Your task to perform on an android device: check storage Image 0: 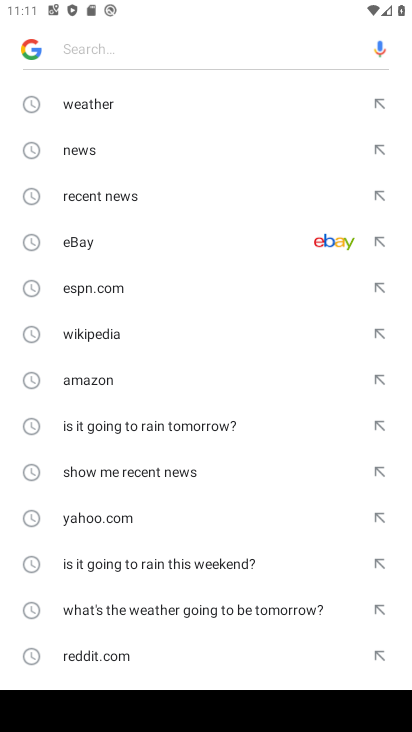
Step 0: press home button
Your task to perform on an android device: check storage Image 1: 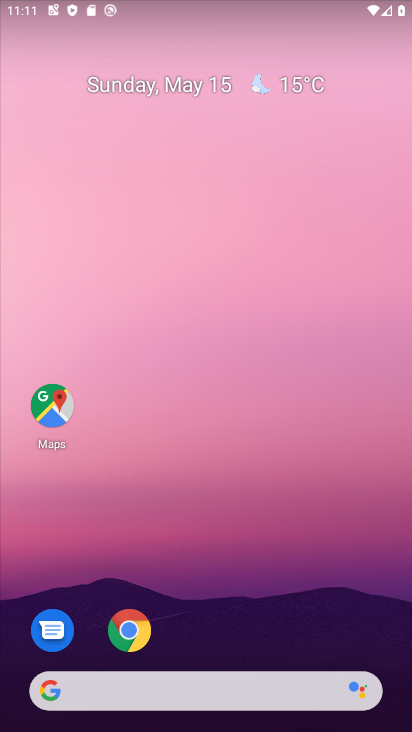
Step 1: drag from (193, 726) to (197, 144)
Your task to perform on an android device: check storage Image 2: 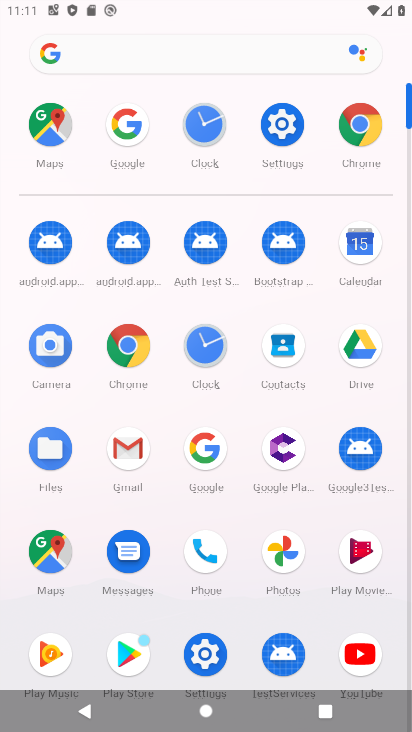
Step 2: click (289, 122)
Your task to perform on an android device: check storage Image 3: 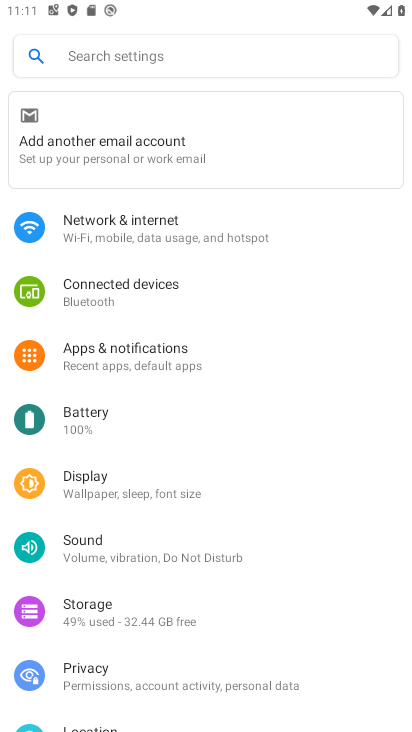
Step 3: click (81, 606)
Your task to perform on an android device: check storage Image 4: 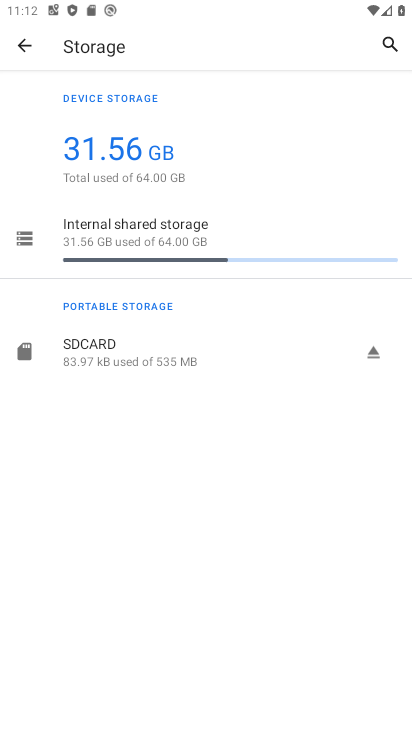
Step 4: task complete